Your task to perform on an android device: Show me productivity apps on the Play Store Image 0: 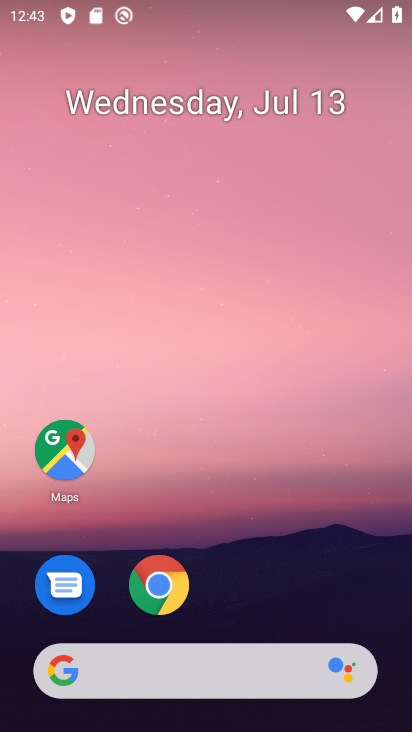
Step 0: drag from (197, 657) to (240, 95)
Your task to perform on an android device: Show me productivity apps on the Play Store Image 1: 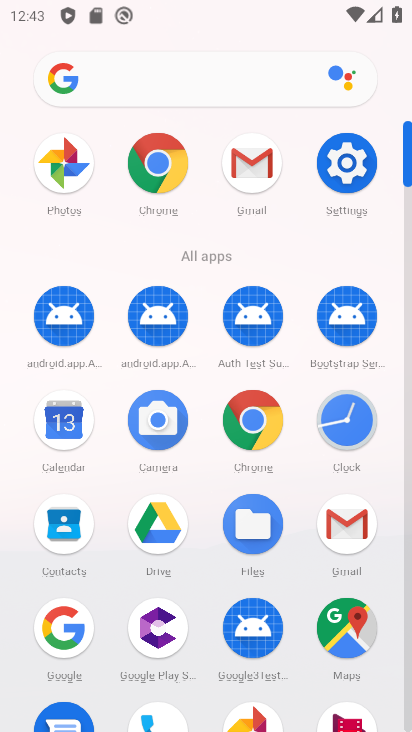
Step 1: drag from (196, 670) to (284, 257)
Your task to perform on an android device: Show me productivity apps on the Play Store Image 2: 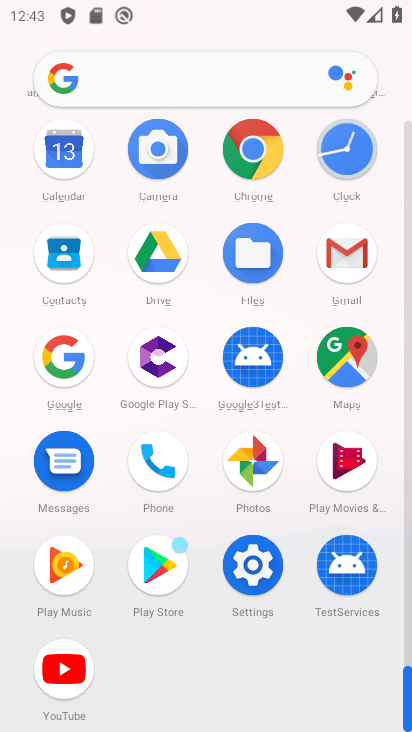
Step 2: click (155, 578)
Your task to perform on an android device: Show me productivity apps on the Play Store Image 3: 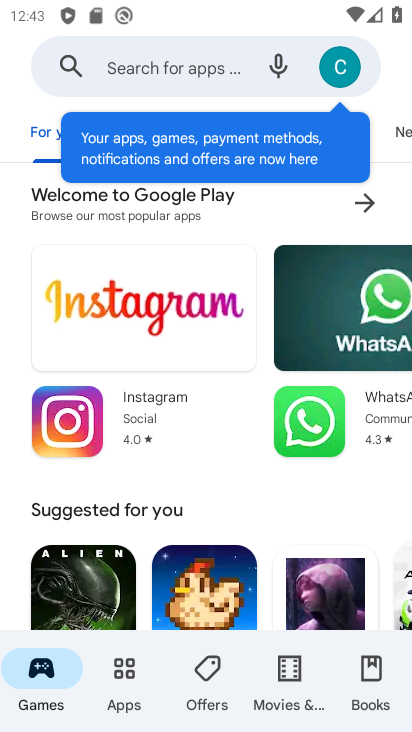
Step 3: click (125, 667)
Your task to perform on an android device: Show me productivity apps on the Play Store Image 4: 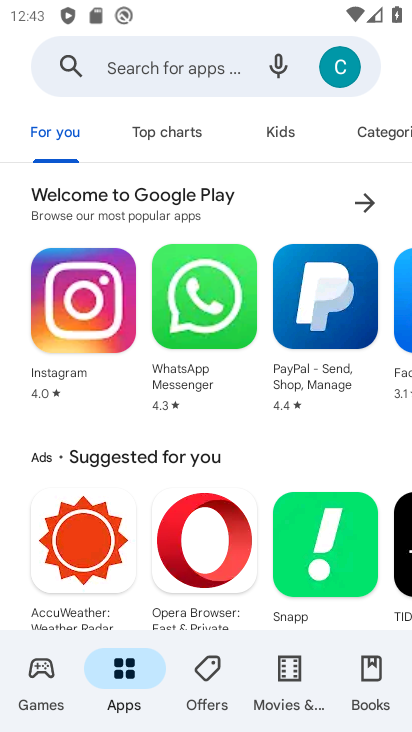
Step 4: click (367, 132)
Your task to perform on an android device: Show me productivity apps on the Play Store Image 5: 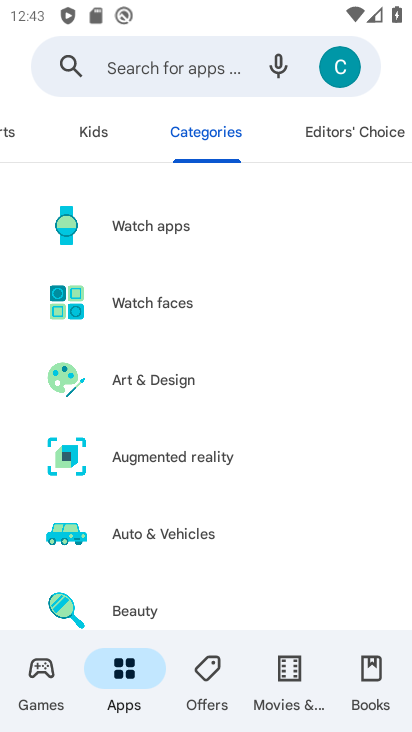
Step 5: drag from (179, 555) to (294, 135)
Your task to perform on an android device: Show me productivity apps on the Play Store Image 6: 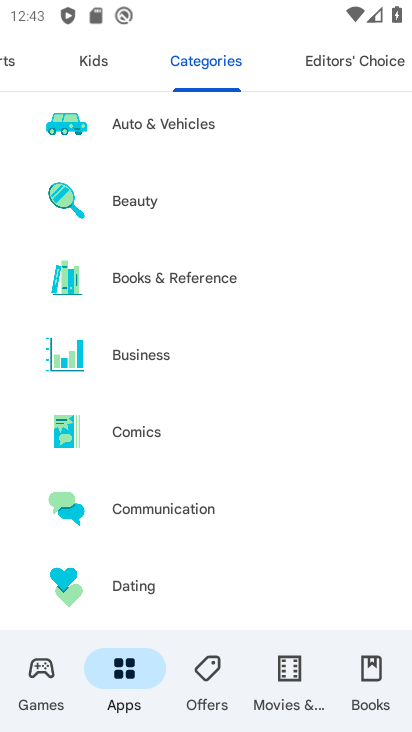
Step 6: drag from (173, 567) to (293, 28)
Your task to perform on an android device: Show me productivity apps on the Play Store Image 7: 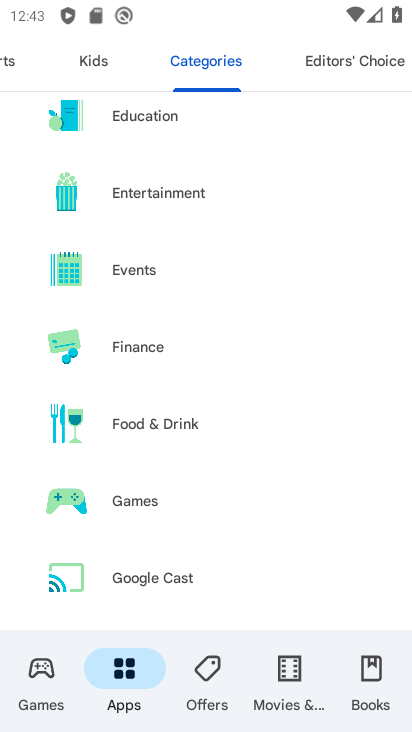
Step 7: drag from (182, 583) to (279, 10)
Your task to perform on an android device: Show me productivity apps on the Play Store Image 8: 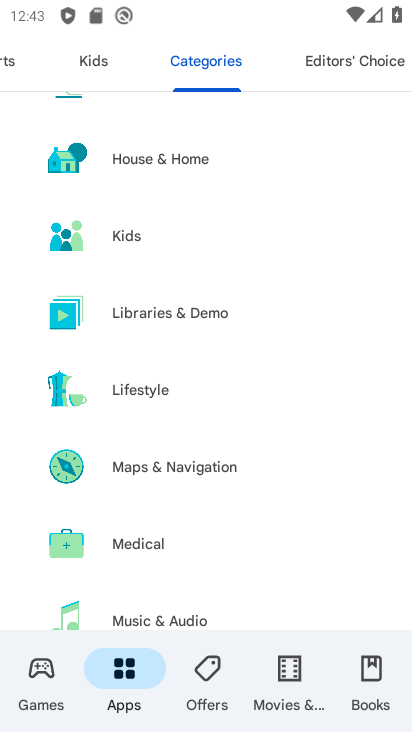
Step 8: drag from (208, 557) to (274, 379)
Your task to perform on an android device: Show me productivity apps on the Play Store Image 9: 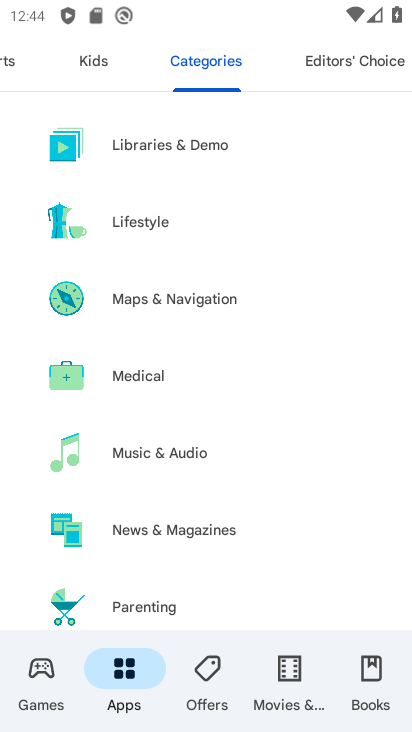
Step 9: drag from (230, 564) to (289, 167)
Your task to perform on an android device: Show me productivity apps on the Play Store Image 10: 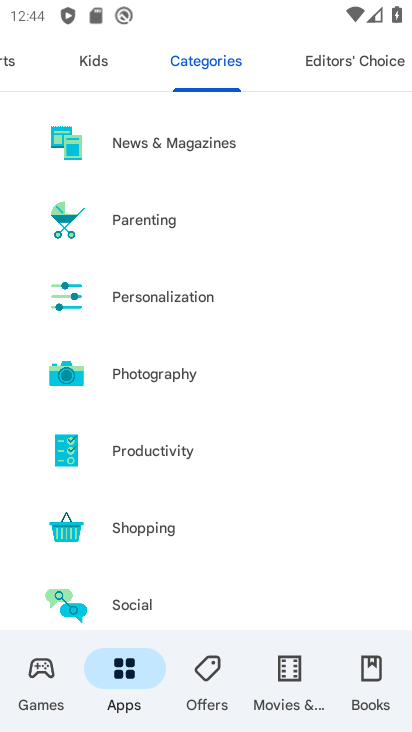
Step 10: click (162, 452)
Your task to perform on an android device: Show me productivity apps on the Play Store Image 11: 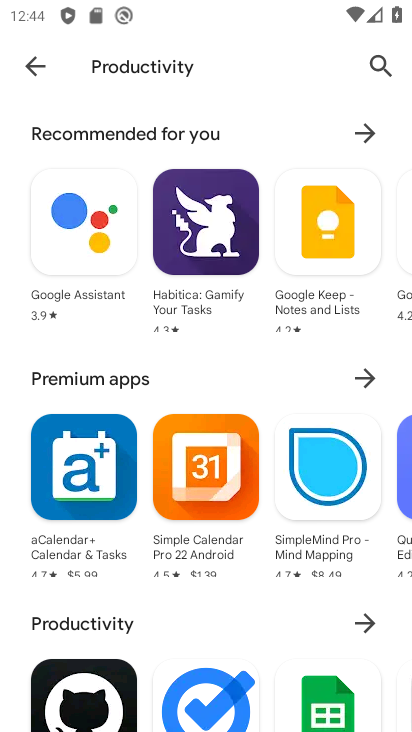
Step 11: task complete